Your task to perform on an android device: Go to Maps Image 0: 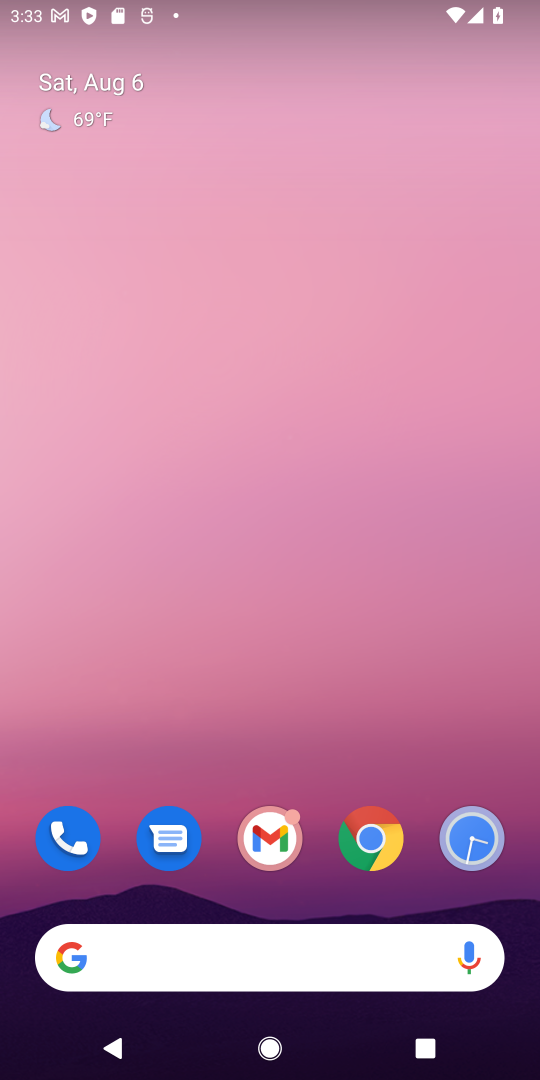
Step 0: drag from (12, 891) to (239, 39)
Your task to perform on an android device: Go to Maps Image 1: 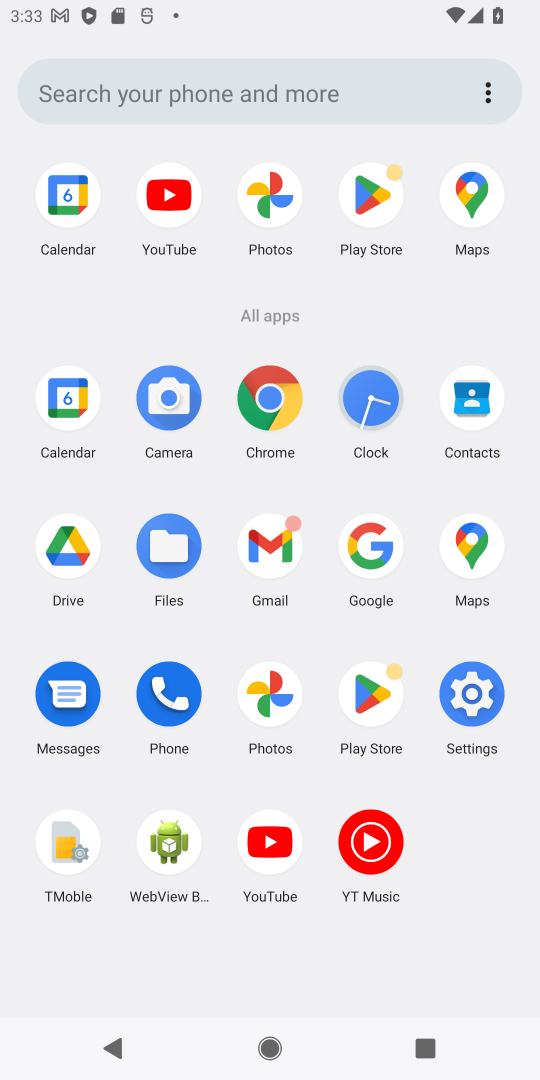
Step 1: click (484, 532)
Your task to perform on an android device: Go to Maps Image 2: 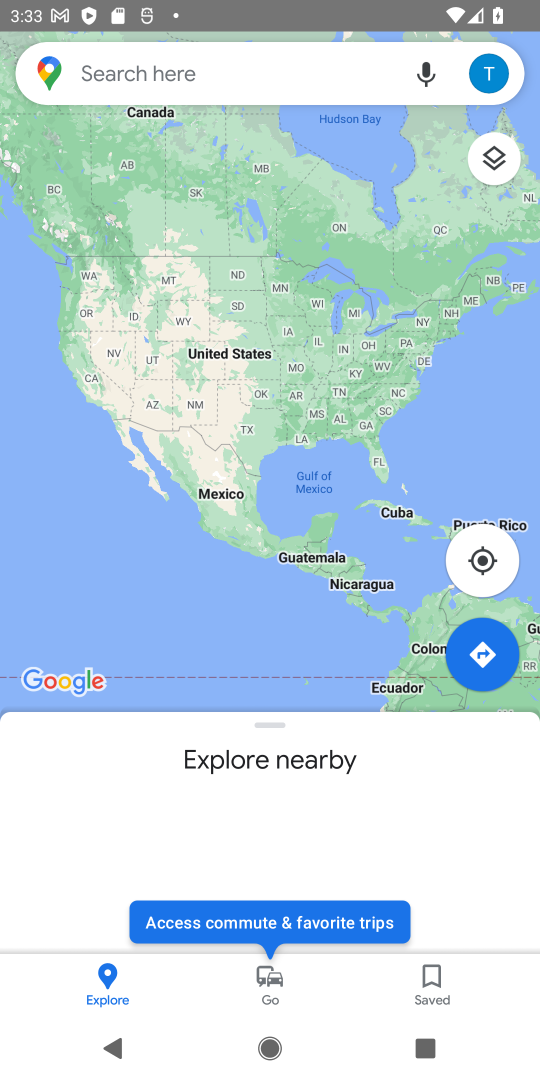
Step 2: task complete